Your task to perform on an android device: turn on airplane mode Image 0: 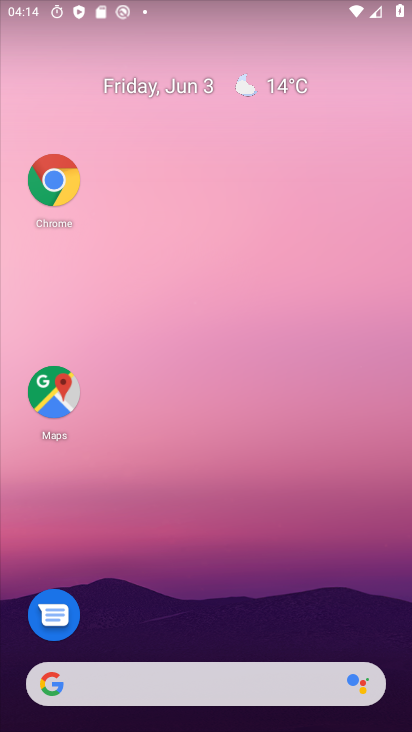
Step 0: drag from (270, 26) to (240, 708)
Your task to perform on an android device: turn on airplane mode Image 1: 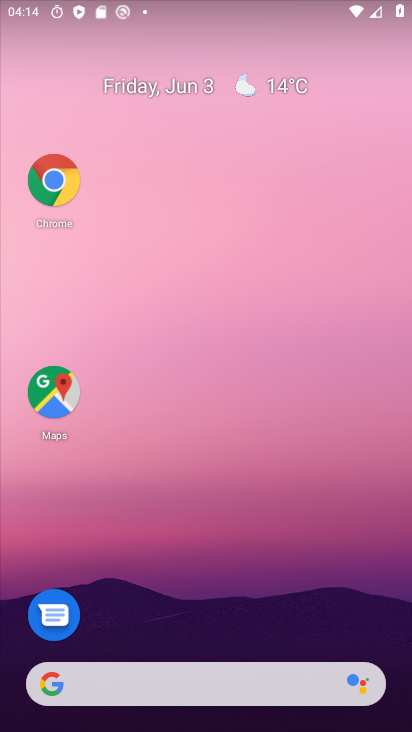
Step 1: drag from (282, 14) to (166, 577)
Your task to perform on an android device: turn on airplane mode Image 2: 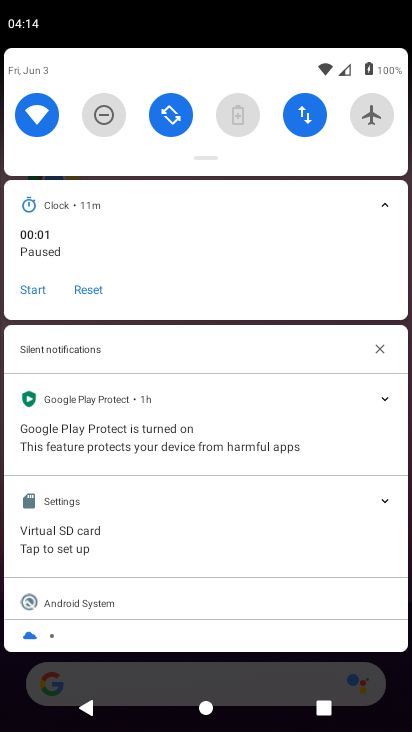
Step 2: click (375, 113)
Your task to perform on an android device: turn on airplane mode Image 3: 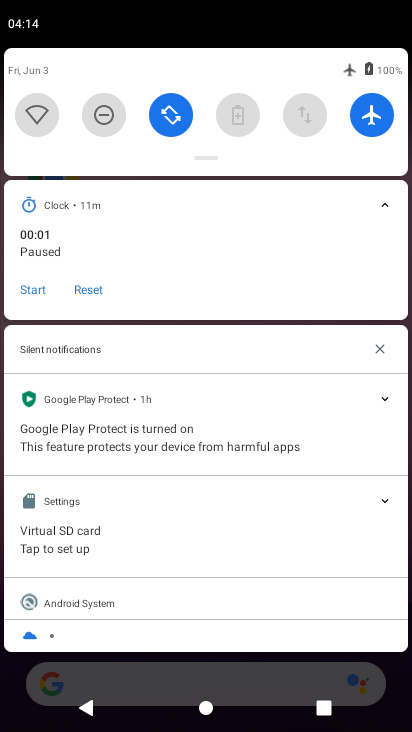
Step 3: task complete